Your task to perform on an android device: Do I have any events tomorrow? Image 0: 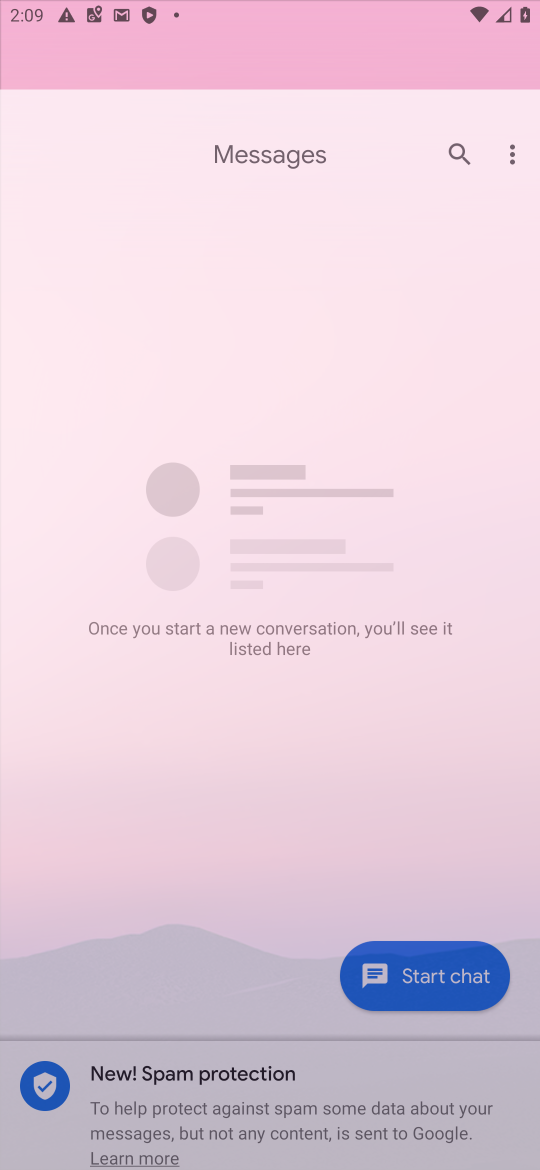
Step 0: press home button
Your task to perform on an android device: Do I have any events tomorrow? Image 1: 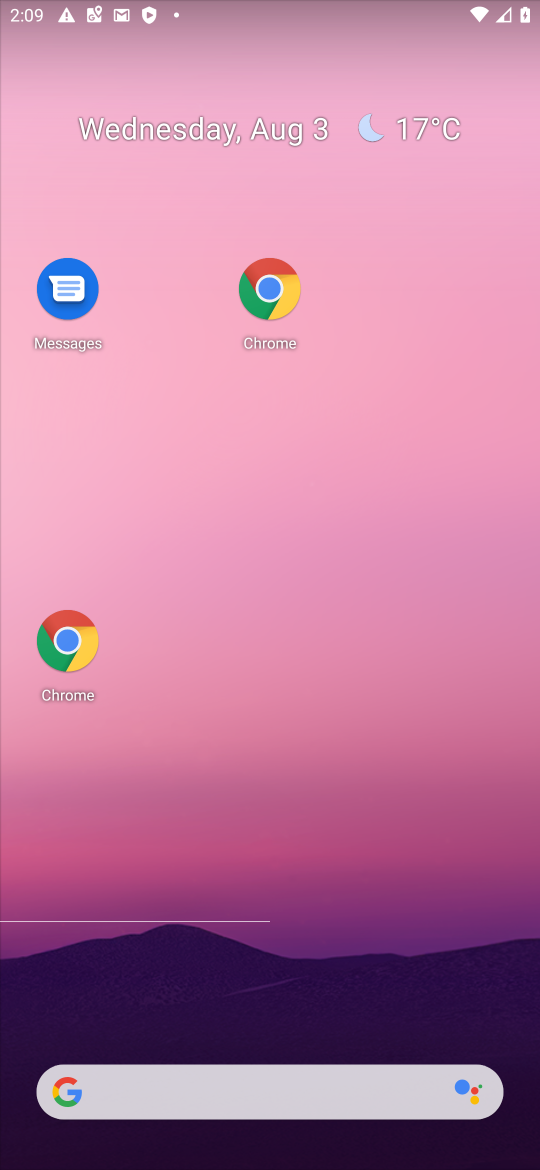
Step 1: drag from (406, 966) to (381, 656)
Your task to perform on an android device: Do I have any events tomorrow? Image 2: 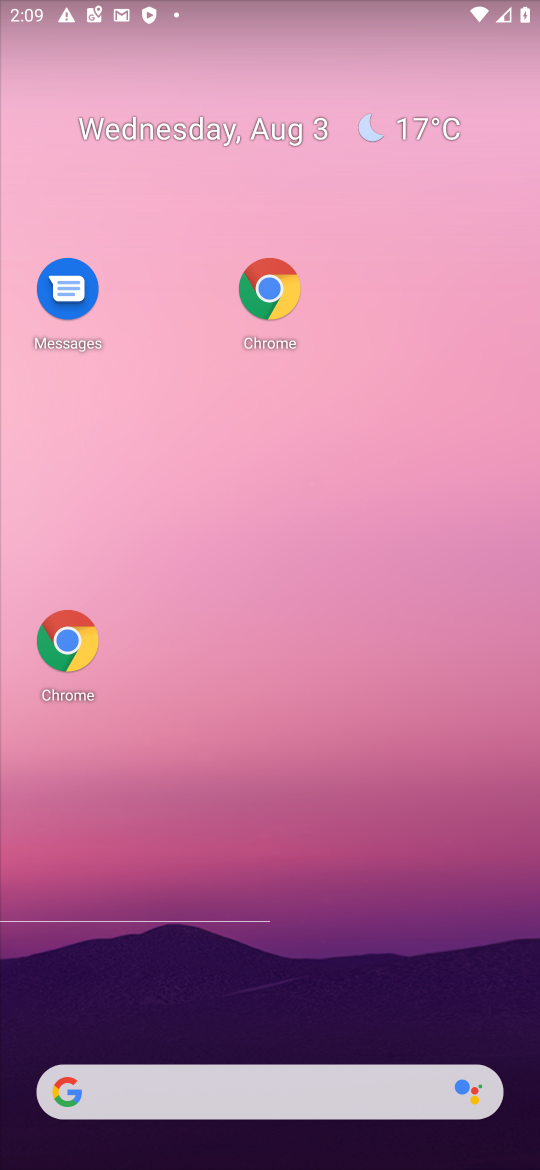
Step 2: click (381, 656)
Your task to perform on an android device: Do I have any events tomorrow? Image 3: 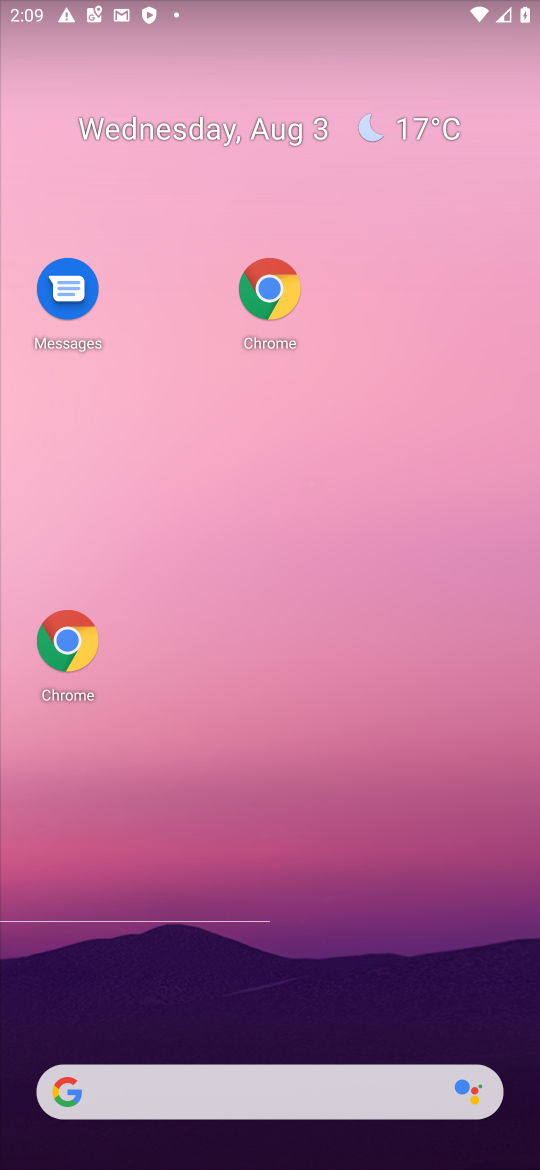
Step 3: drag from (365, 967) to (336, 207)
Your task to perform on an android device: Do I have any events tomorrow? Image 4: 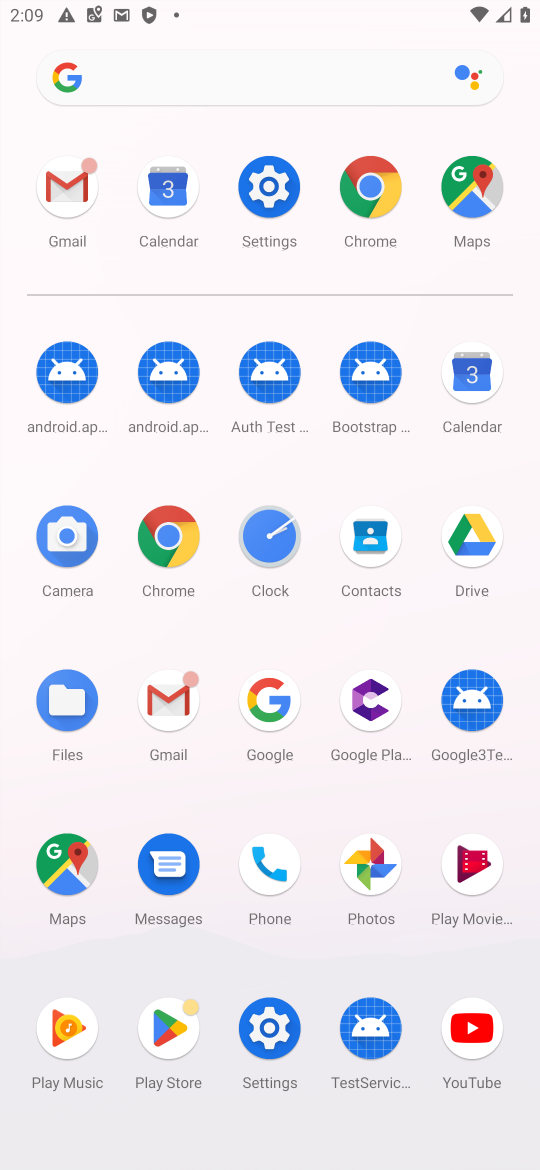
Step 4: click (174, 204)
Your task to perform on an android device: Do I have any events tomorrow? Image 5: 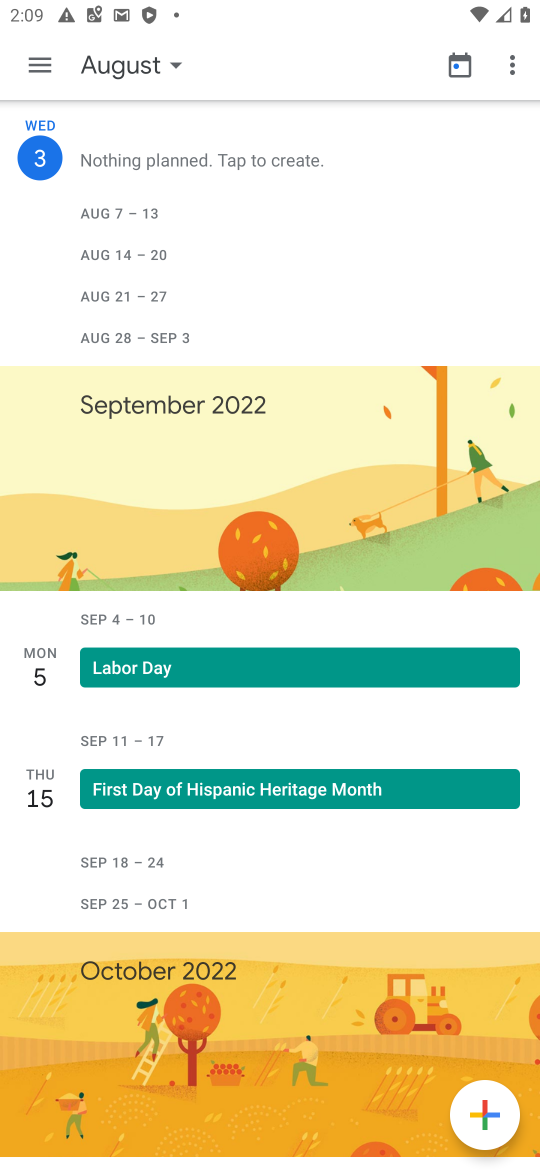
Step 5: task complete